Your task to perform on an android device: Search for "bose soundsport free" on amazon, select the first entry, and add it to the cart. Image 0: 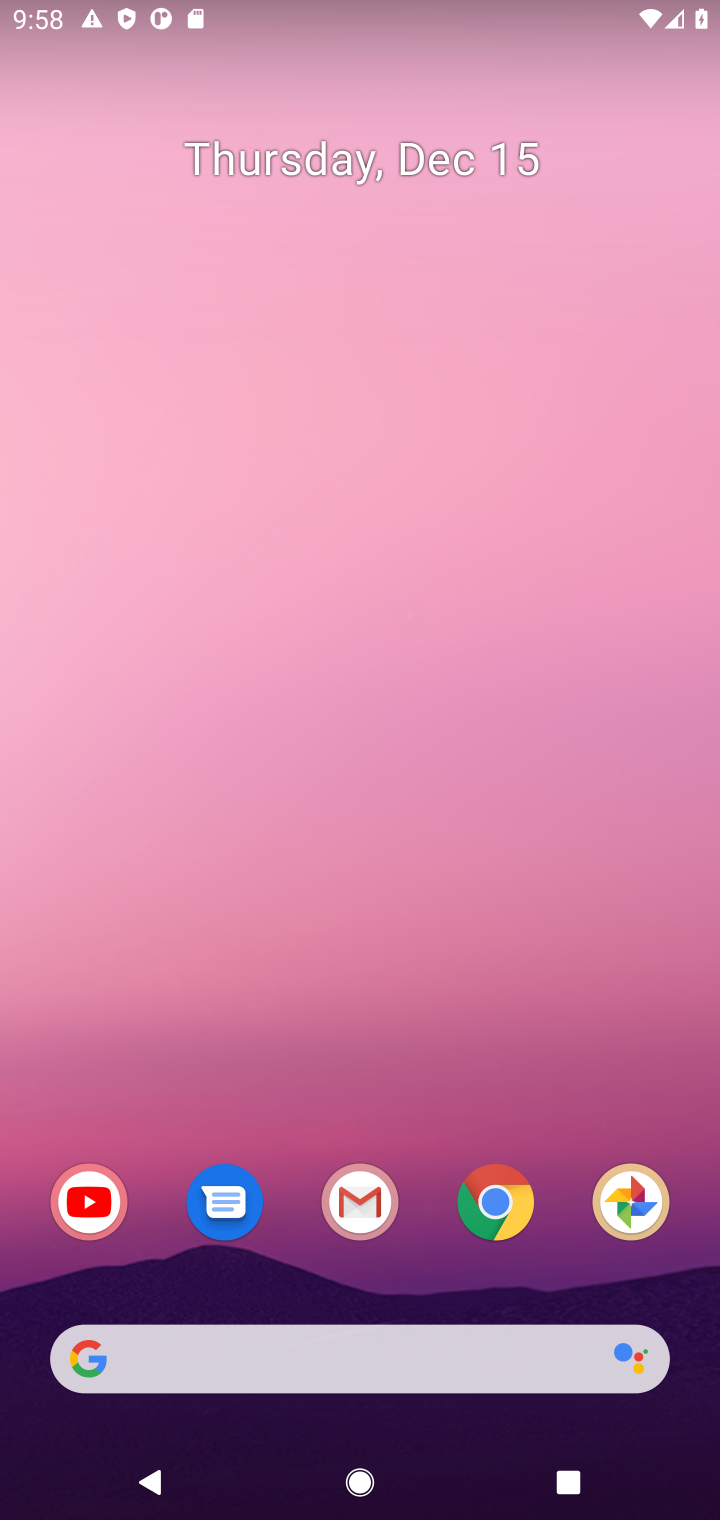
Step 0: click (504, 1216)
Your task to perform on an android device: Search for "bose soundsport free" on amazon, select the first entry, and add it to the cart. Image 1: 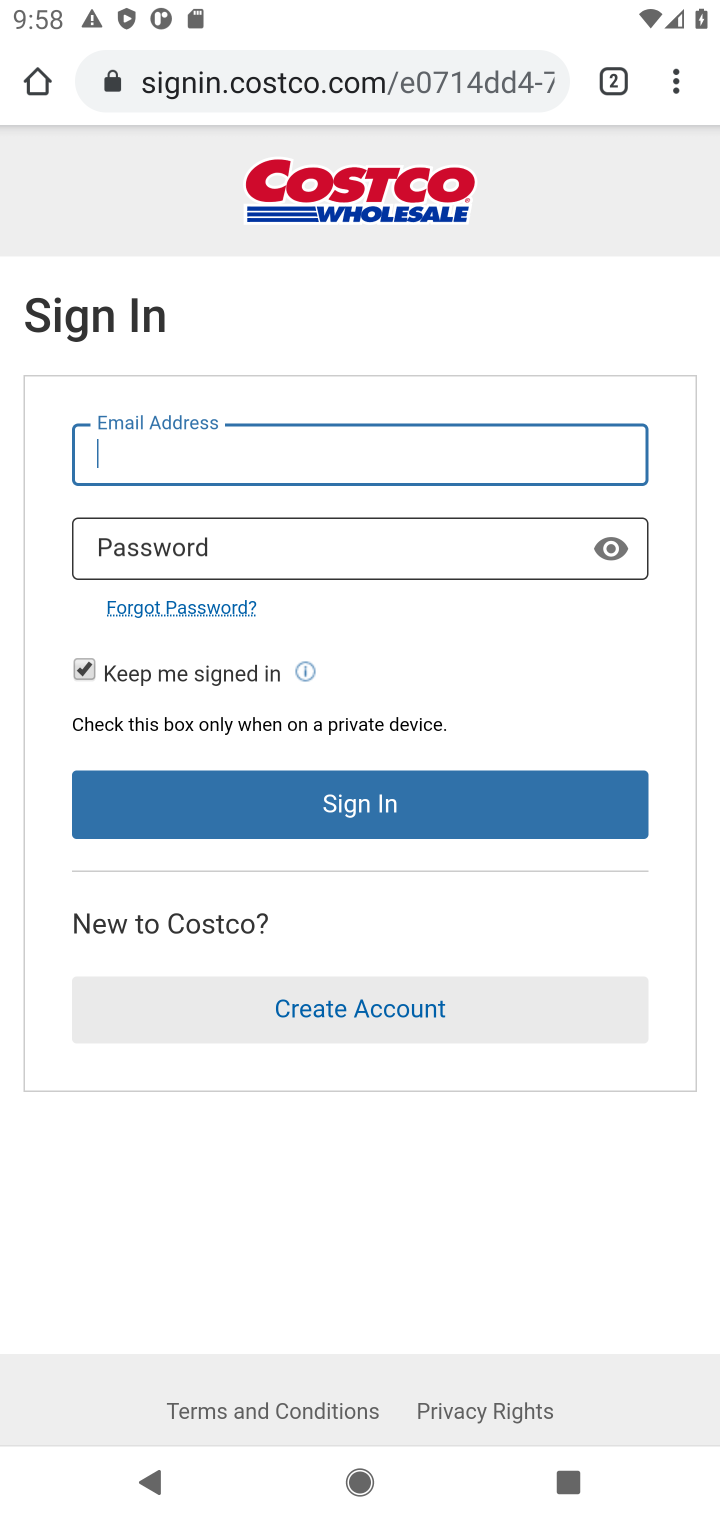
Step 1: click (258, 72)
Your task to perform on an android device: Search for "bose soundsport free" on amazon, select the first entry, and add it to the cart. Image 2: 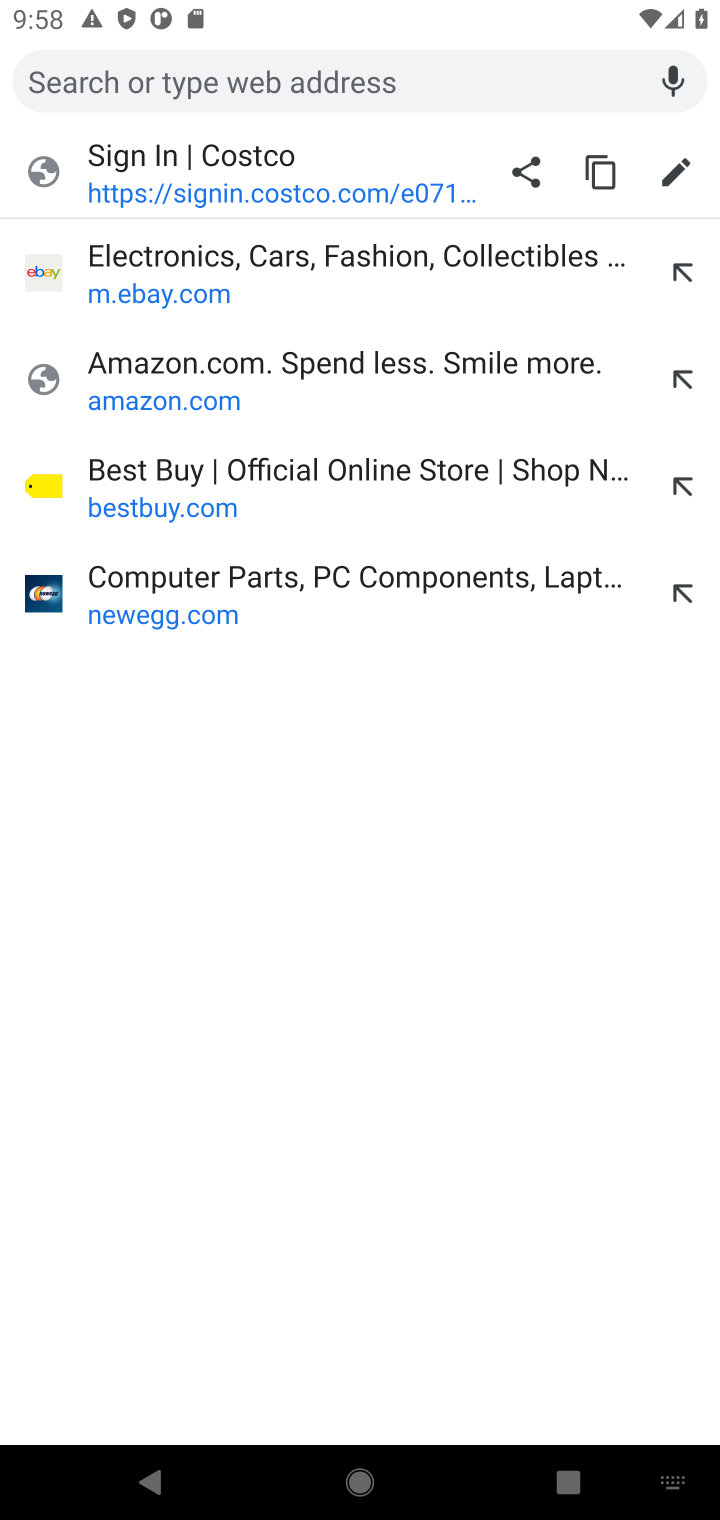
Step 2: click (140, 379)
Your task to perform on an android device: Search for "bose soundsport free" on amazon, select the first entry, and add it to the cart. Image 3: 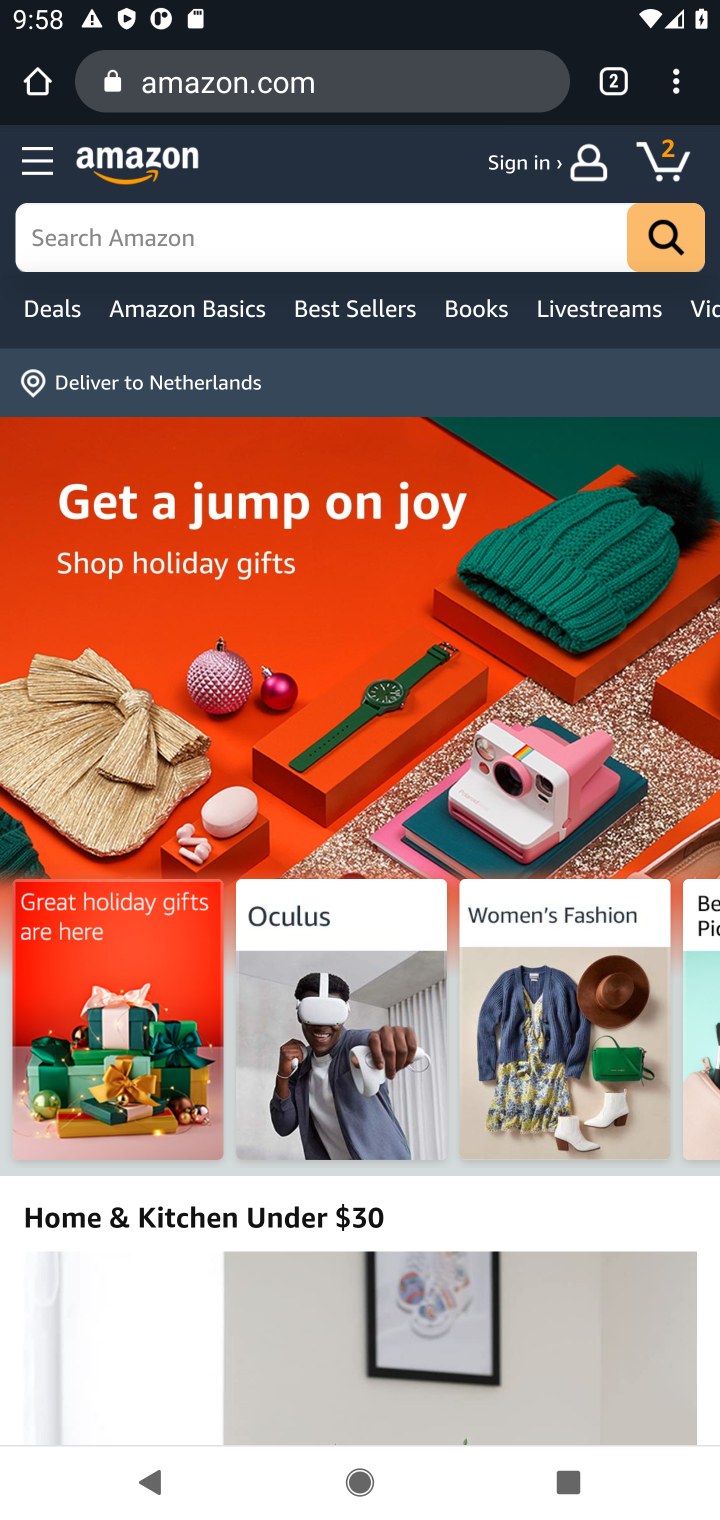
Step 3: click (126, 243)
Your task to perform on an android device: Search for "bose soundsport free" on amazon, select the first entry, and add it to the cart. Image 4: 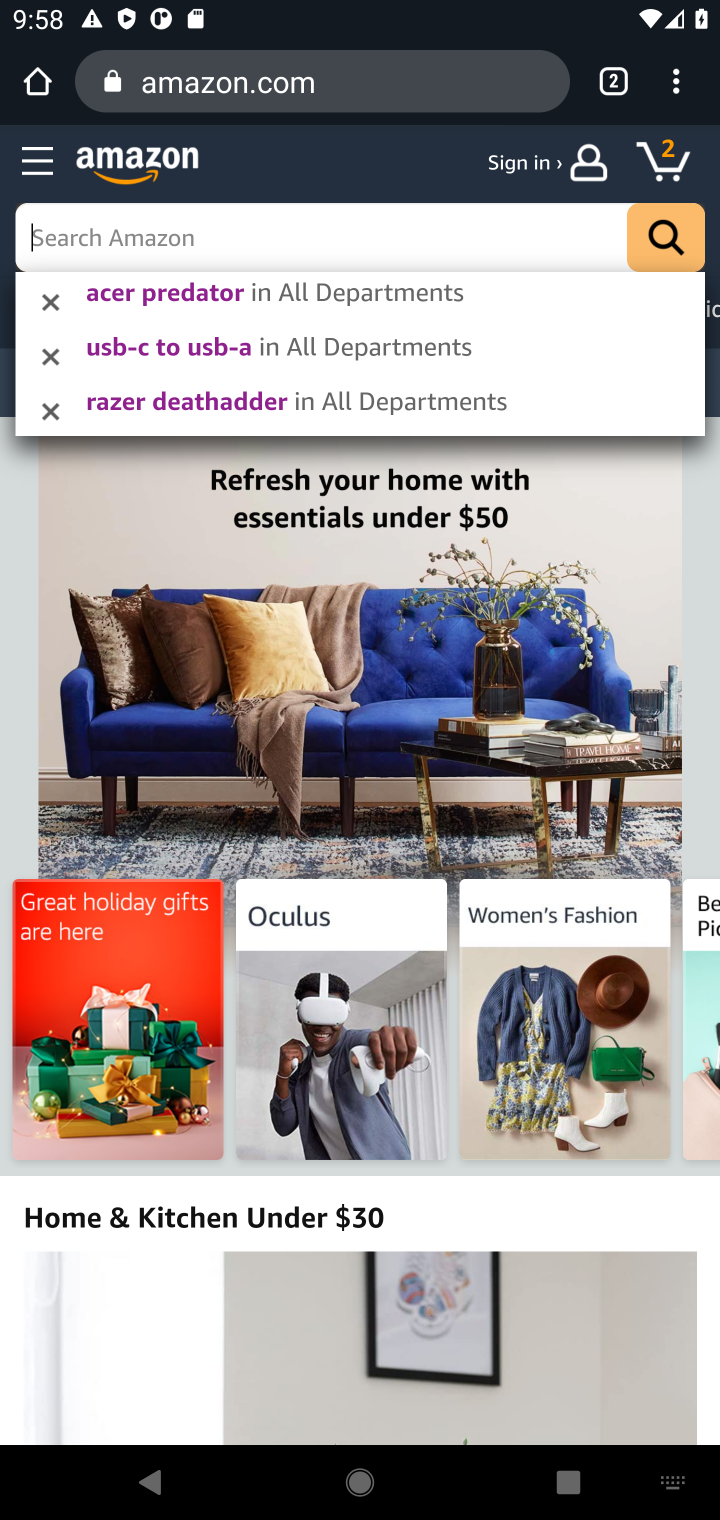
Step 4: type "bose soundsport free"
Your task to perform on an android device: Search for "bose soundsport free" on amazon, select the first entry, and add it to the cart. Image 5: 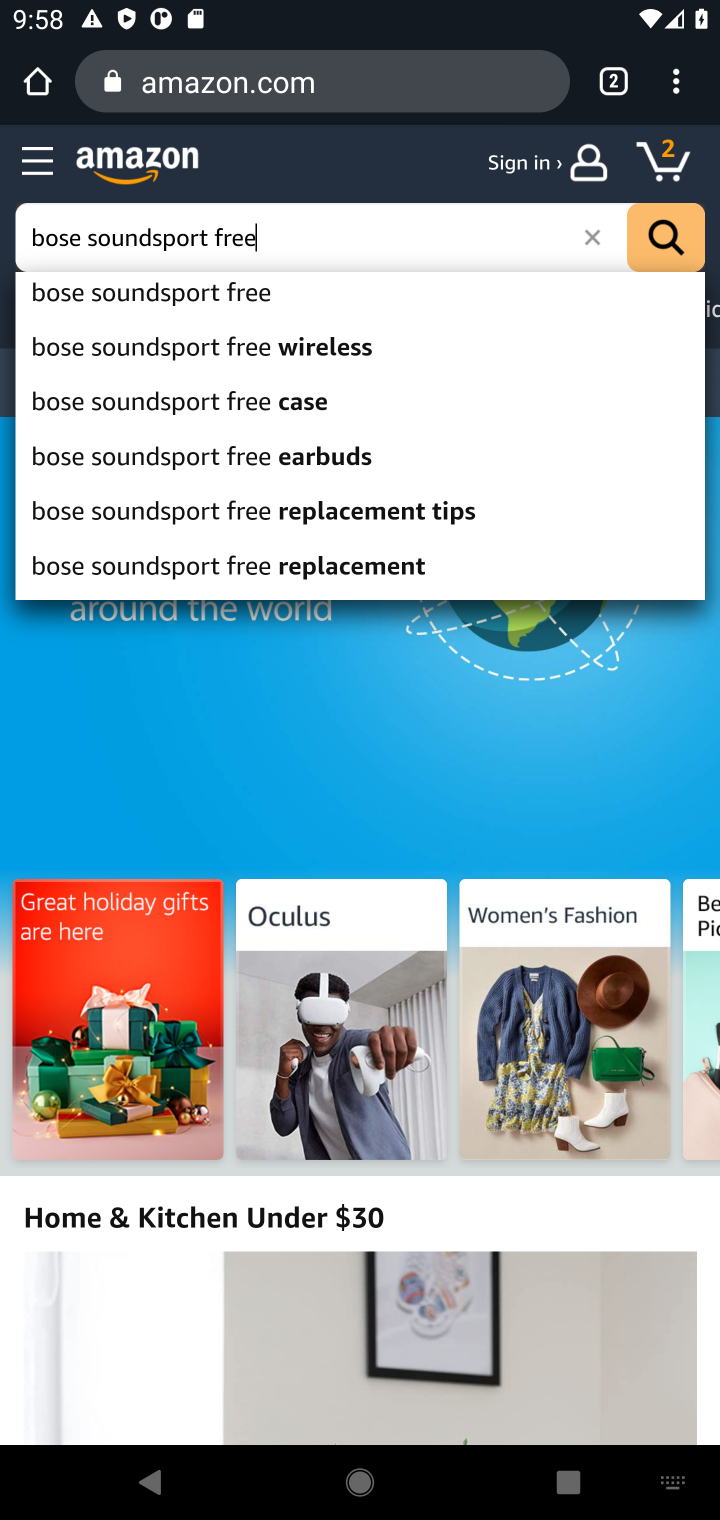
Step 5: click (156, 304)
Your task to perform on an android device: Search for "bose soundsport free" on amazon, select the first entry, and add it to the cart. Image 6: 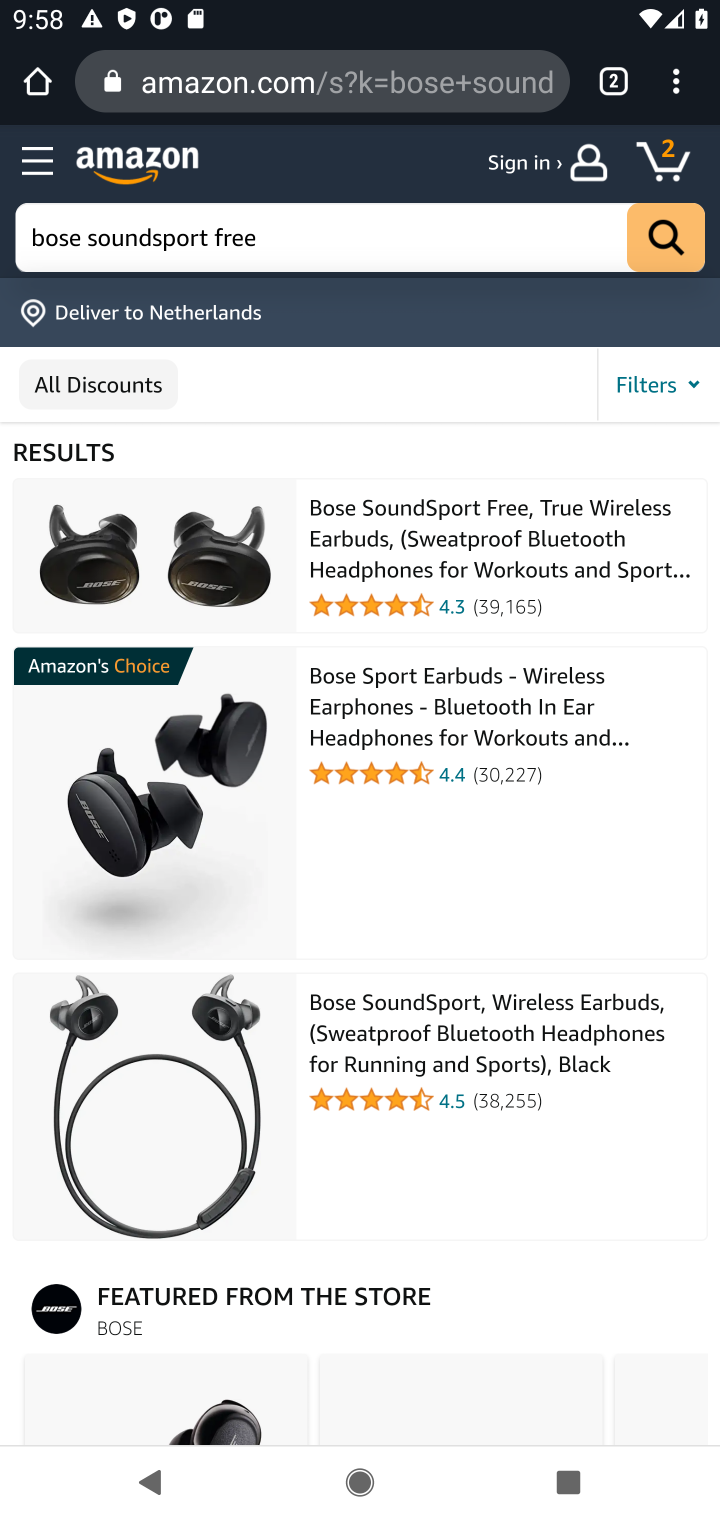
Step 6: click (414, 552)
Your task to perform on an android device: Search for "bose soundsport free" on amazon, select the first entry, and add it to the cart. Image 7: 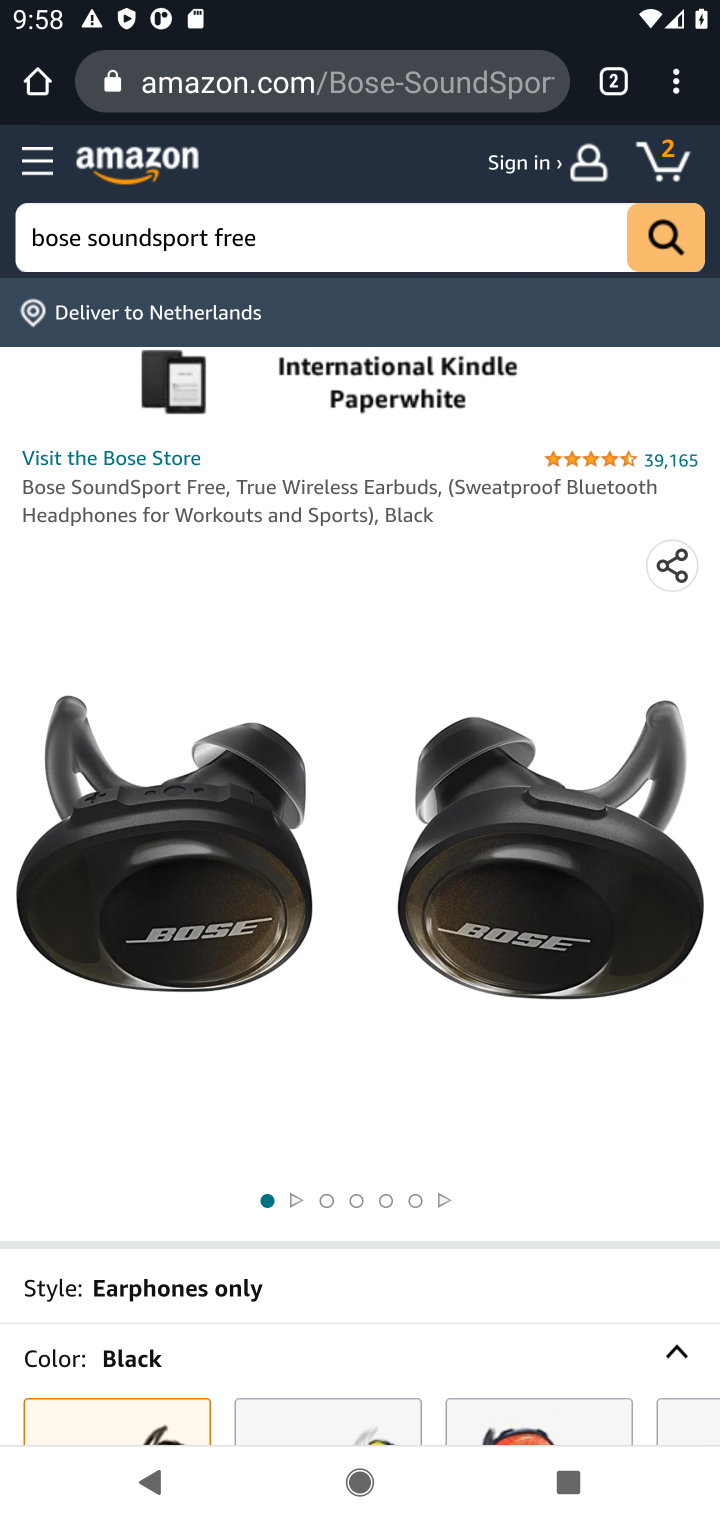
Step 7: task complete